Your task to perform on an android device: When is my next appointment? Image 0: 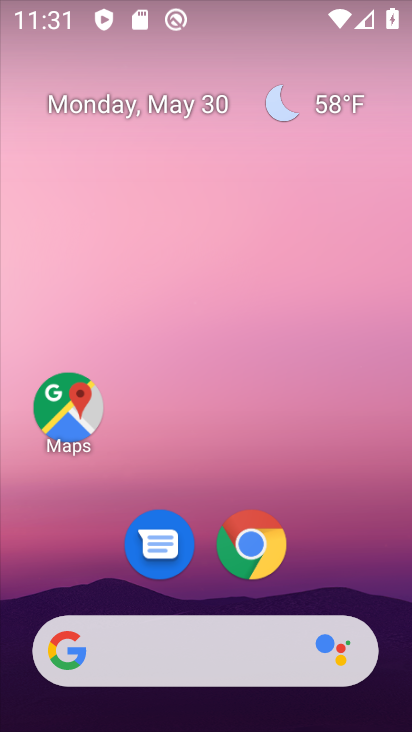
Step 0: drag from (377, 558) to (198, 40)
Your task to perform on an android device: When is my next appointment? Image 1: 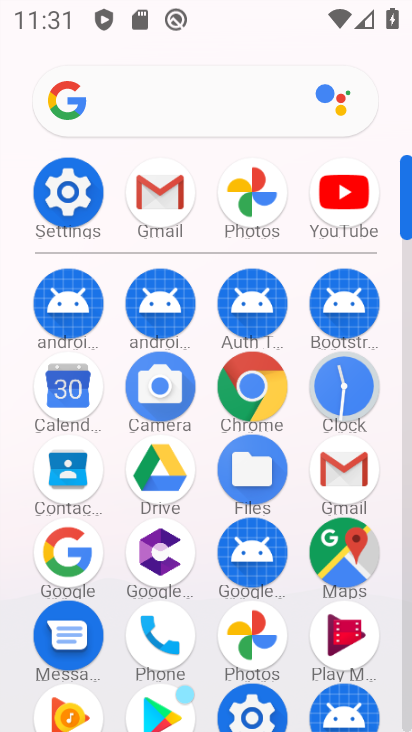
Step 1: click (103, 367)
Your task to perform on an android device: When is my next appointment? Image 2: 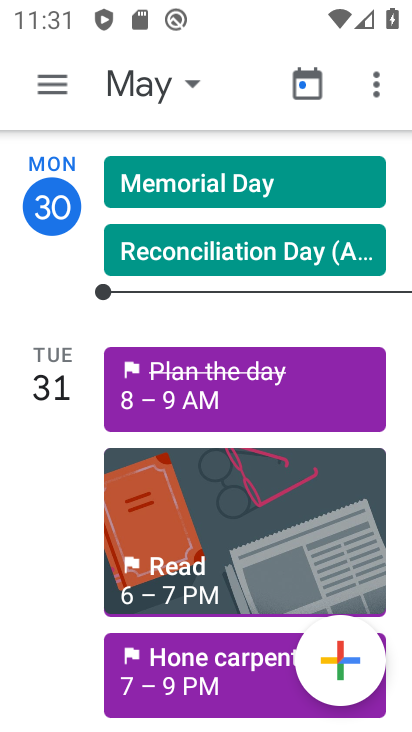
Step 2: task complete